Your task to perform on an android device: Show me popular games on the Play Store Image 0: 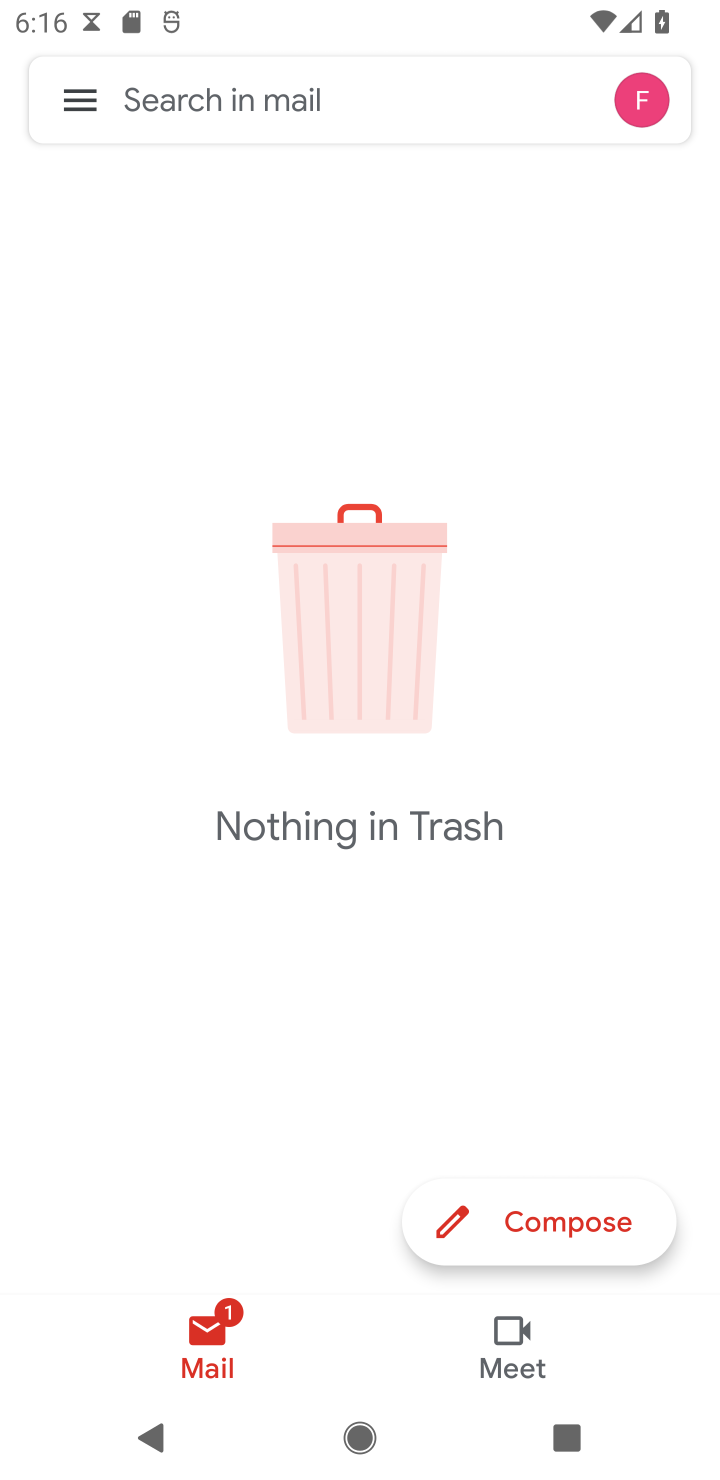
Step 0: press home button
Your task to perform on an android device: Show me popular games on the Play Store Image 1: 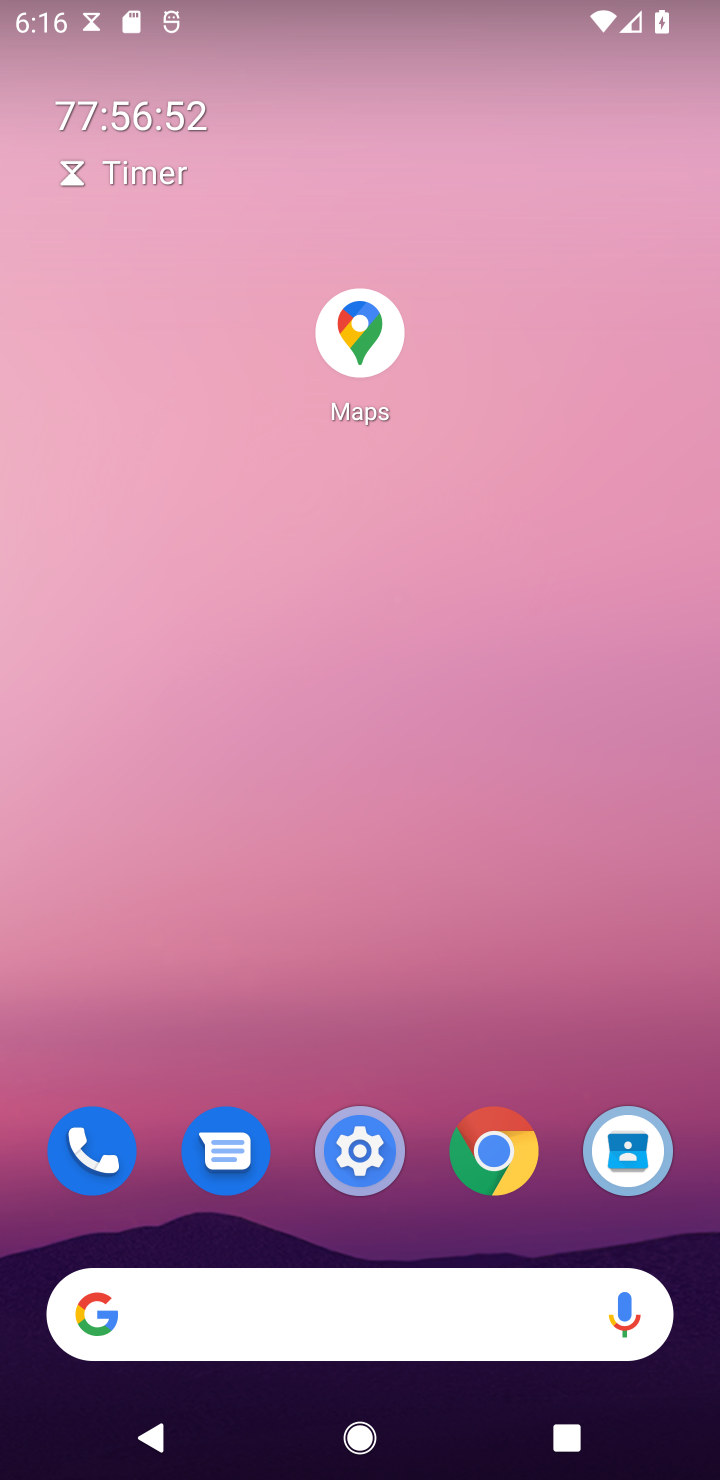
Step 1: drag from (327, 989) to (355, 567)
Your task to perform on an android device: Show me popular games on the Play Store Image 2: 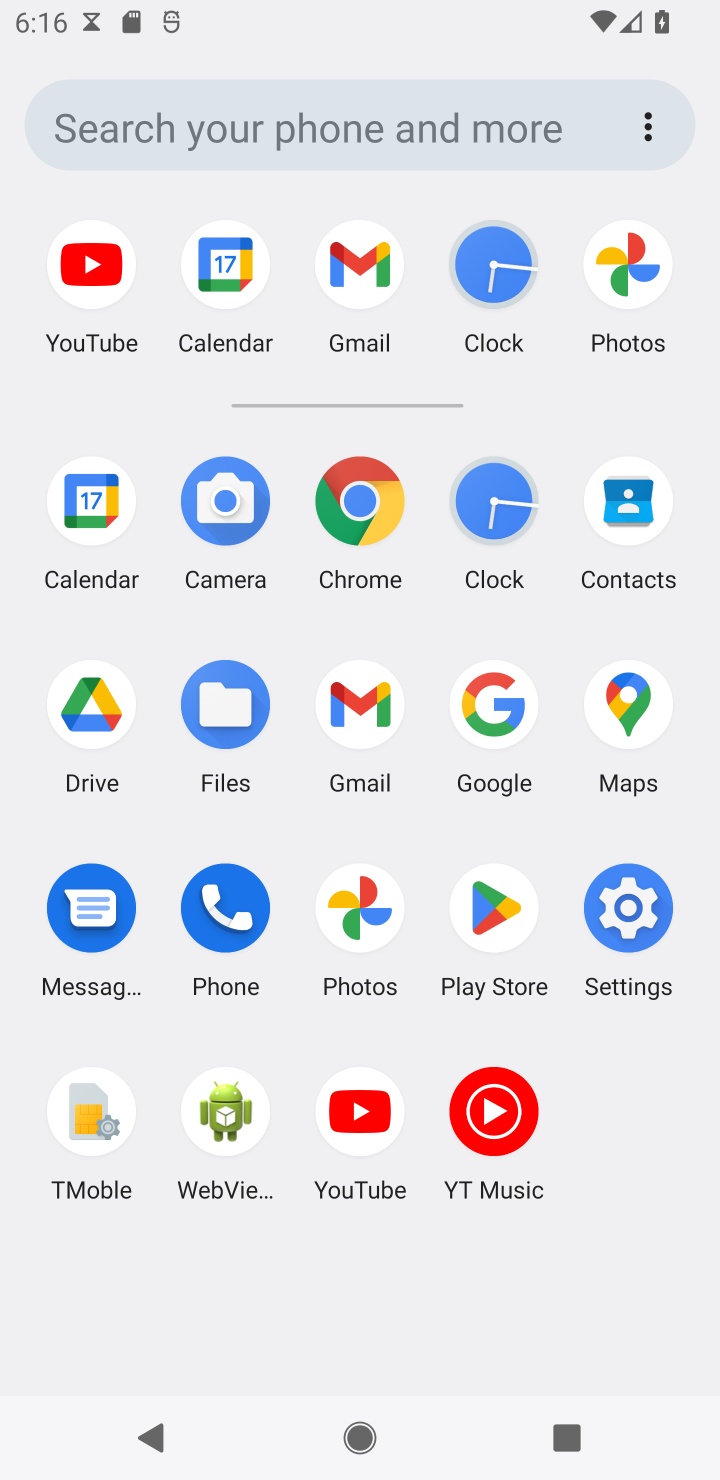
Step 2: click (468, 911)
Your task to perform on an android device: Show me popular games on the Play Store Image 3: 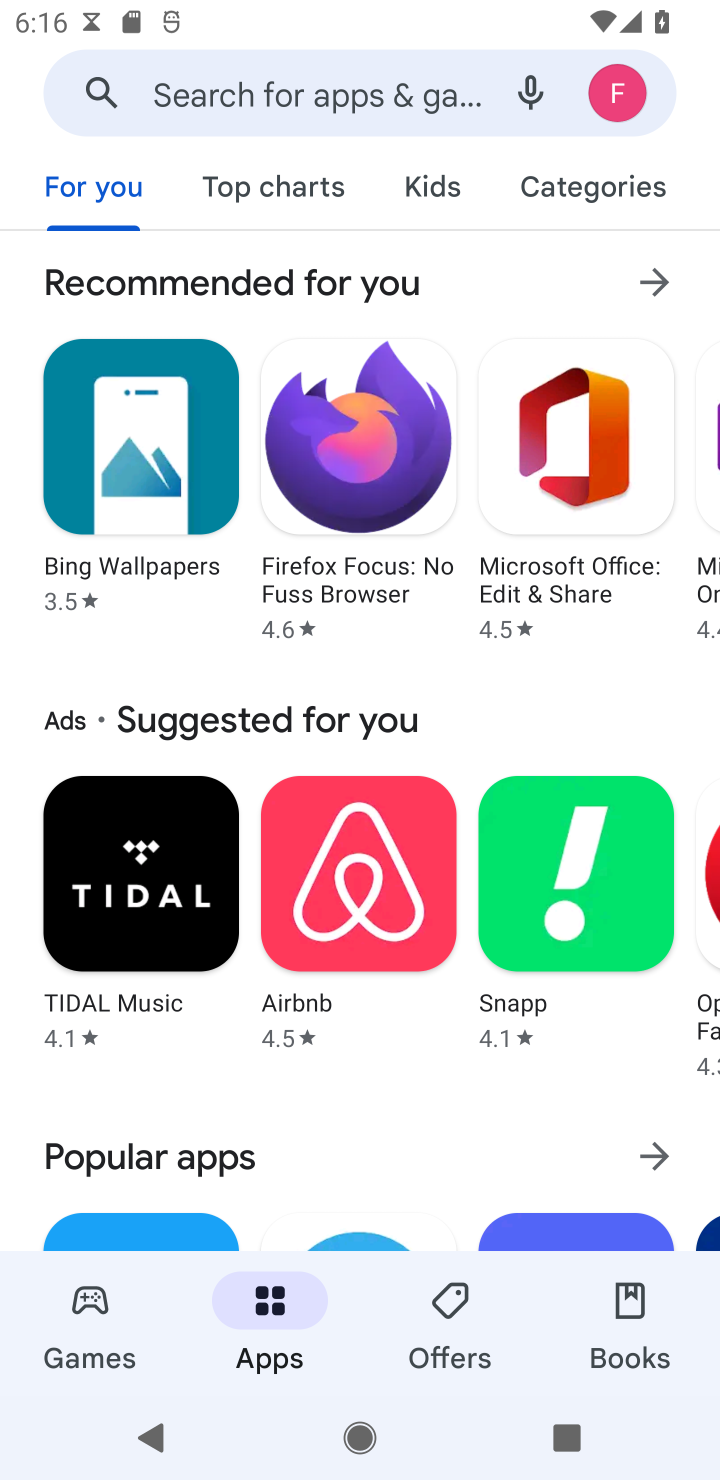
Step 3: click (93, 1289)
Your task to perform on an android device: Show me popular games on the Play Store Image 4: 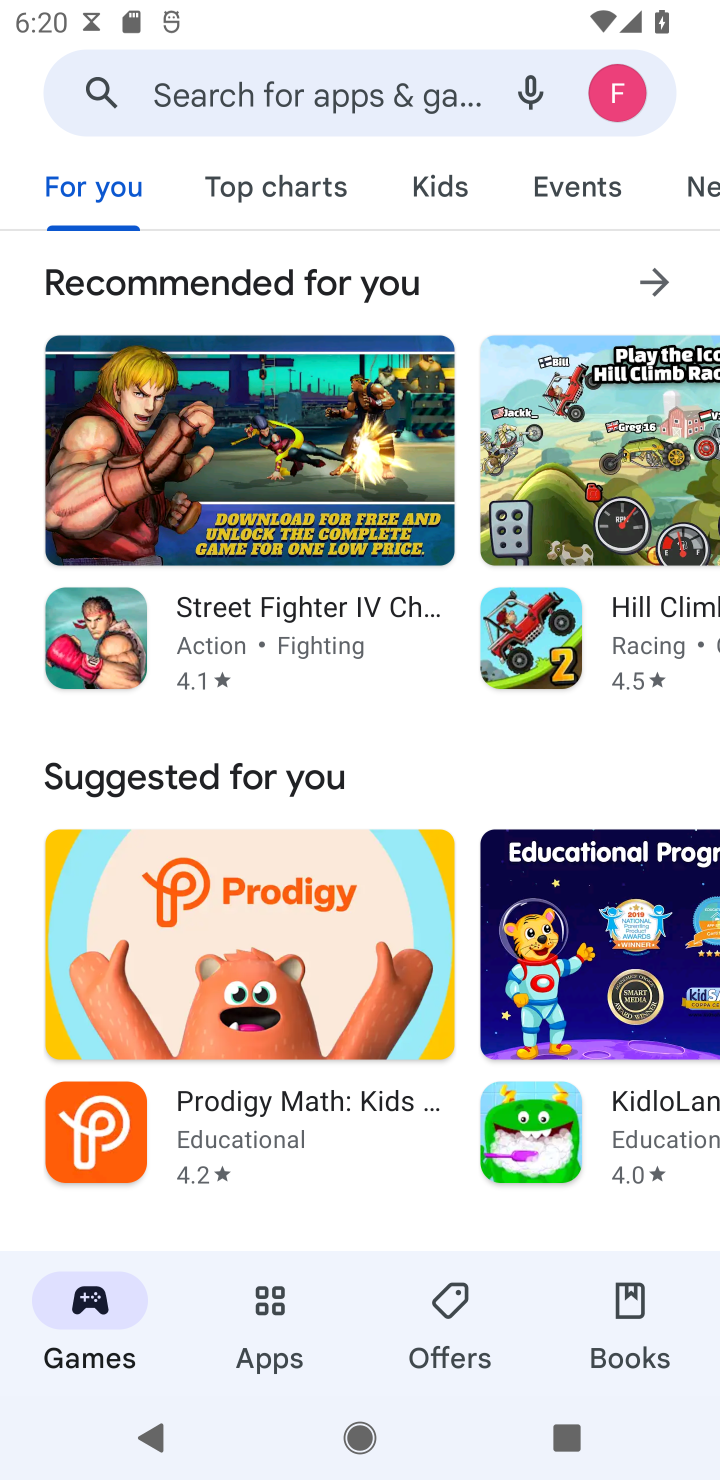
Step 4: task complete